Your task to perform on an android device: all mails in gmail Image 0: 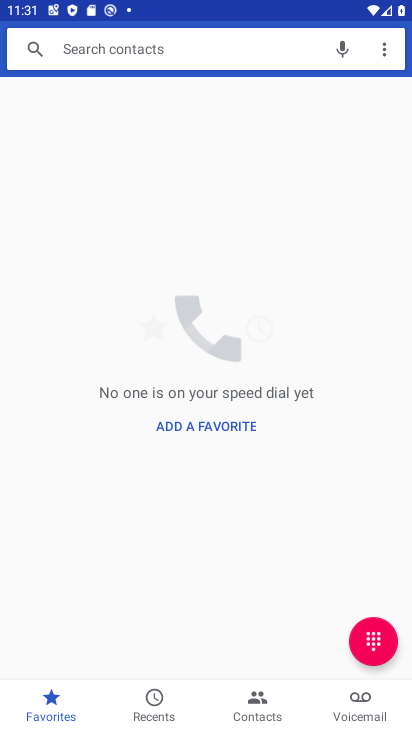
Step 0: press home button
Your task to perform on an android device: all mails in gmail Image 1: 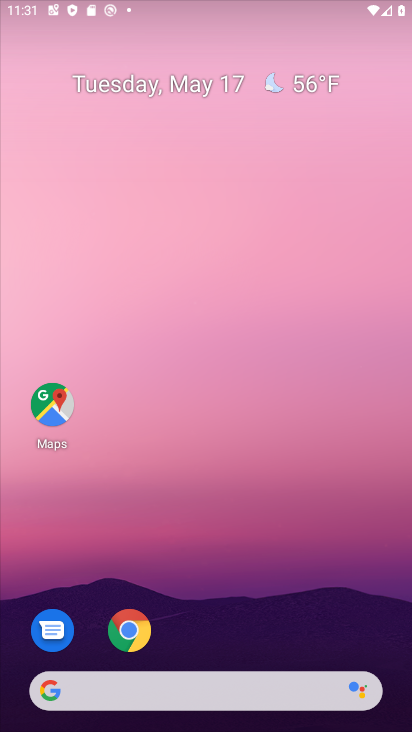
Step 1: drag from (356, 605) to (354, 202)
Your task to perform on an android device: all mails in gmail Image 2: 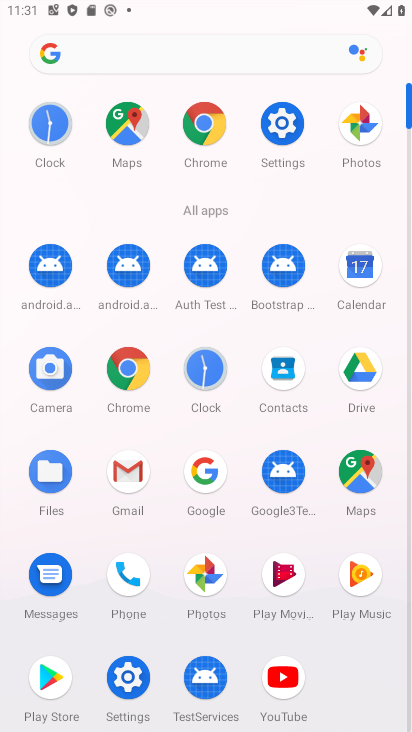
Step 2: click (123, 476)
Your task to perform on an android device: all mails in gmail Image 3: 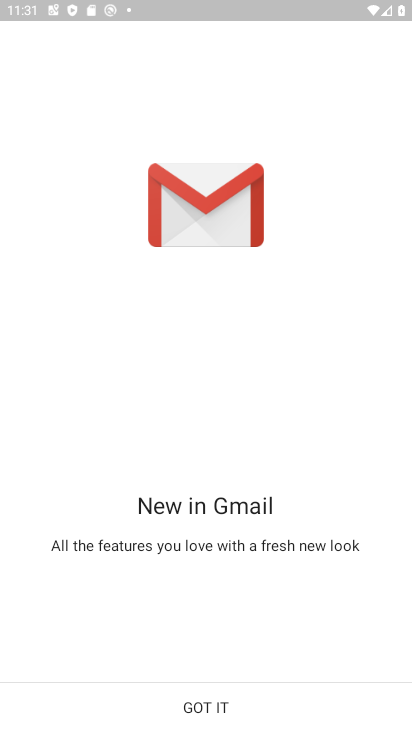
Step 3: click (244, 704)
Your task to perform on an android device: all mails in gmail Image 4: 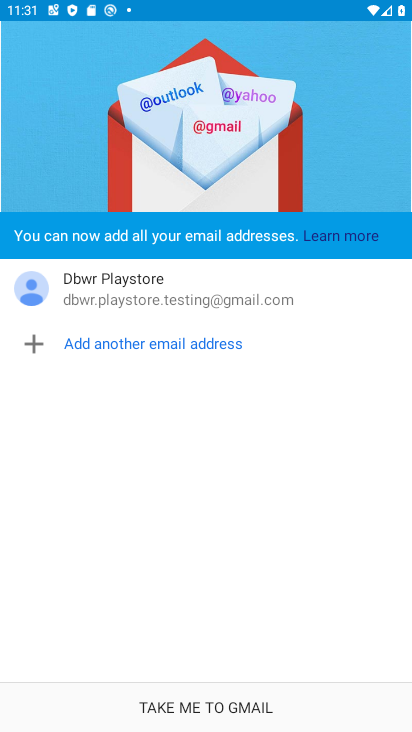
Step 4: click (263, 703)
Your task to perform on an android device: all mails in gmail Image 5: 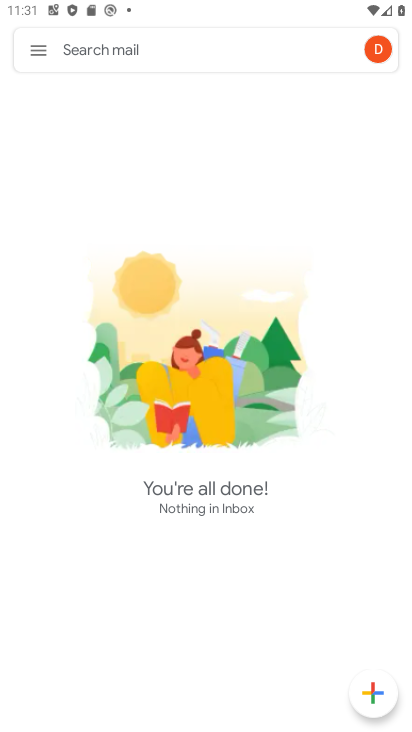
Step 5: click (38, 56)
Your task to perform on an android device: all mails in gmail Image 6: 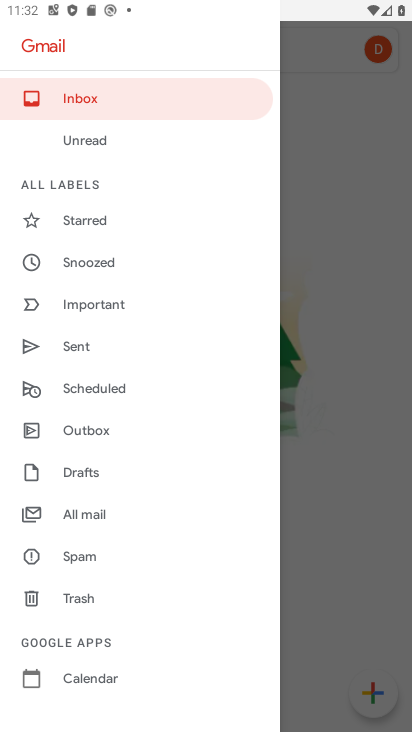
Step 6: drag from (128, 644) to (107, 362)
Your task to perform on an android device: all mails in gmail Image 7: 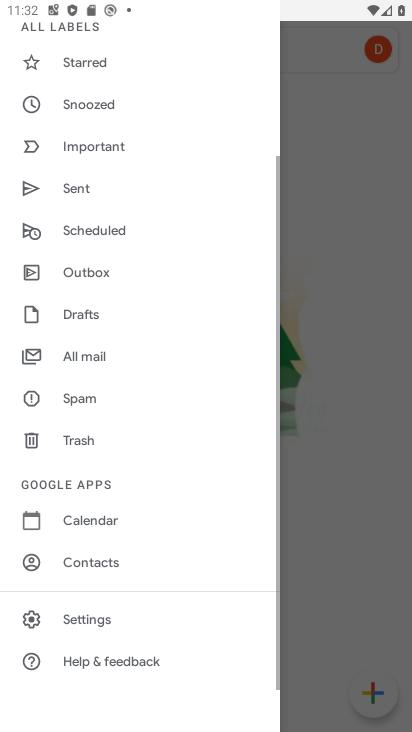
Step 7: click (109, 354)
Your task to perform on an android device: all mails in gmail Image 8: 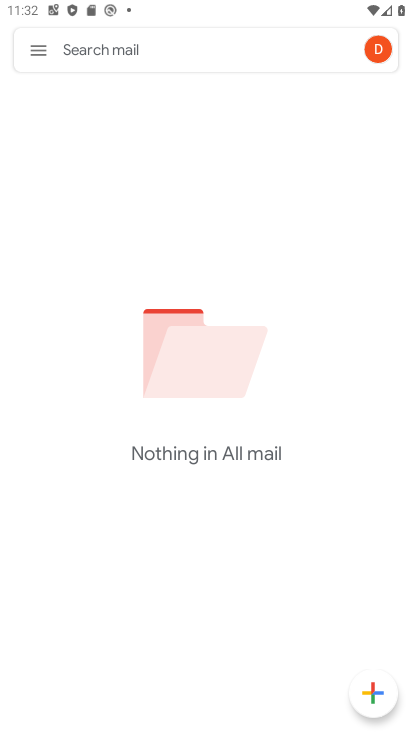
Step 8: task complete